Your task to perform on an android device: change the clock display to show seconds Image 0: 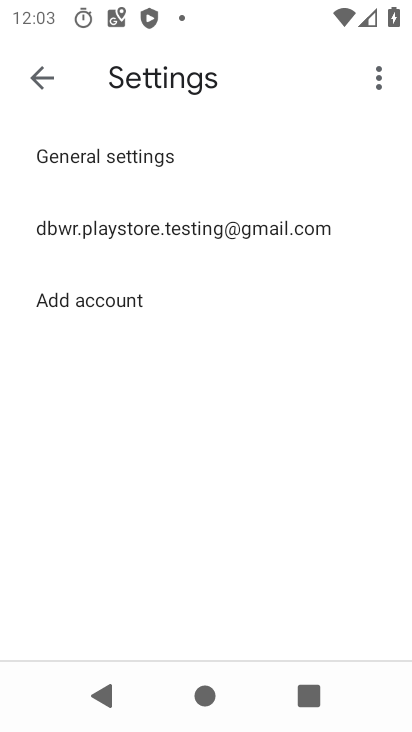
Step 0: press home button
Your task to perform on an android device: change the clock display to show seconds Image 1: 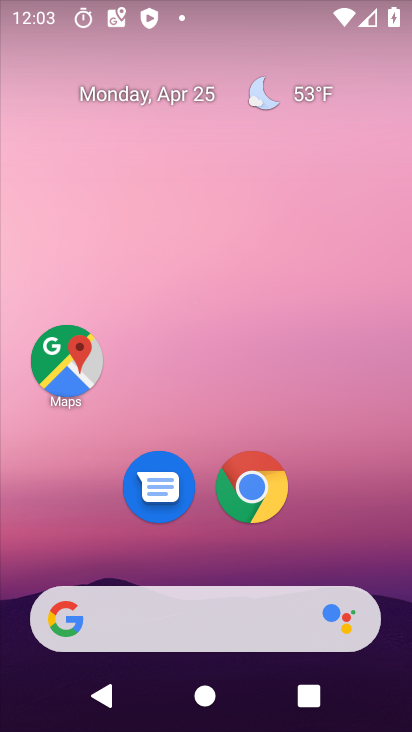
Step 1: drag from (198, 494) to (214, 338)
Your task to perform on an android device: change the clock display to show seconds Image 2: 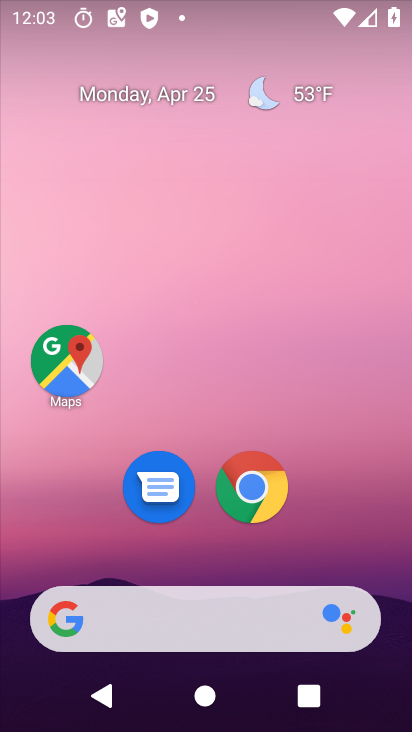
Step 2: drag from (206, 462) to (219, 42)
Your task to perform on an android device: change the clock display to show seconds Image 3: 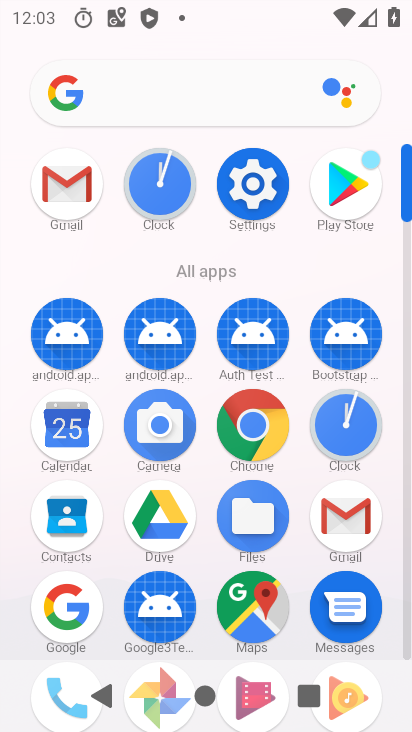
Step 3: click (332, 435)
Your task to perform on an android device: change the clock display to show seconds Image 4: 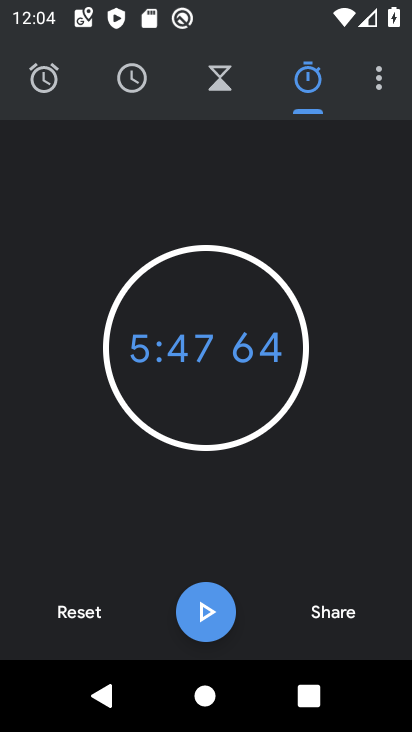
Step 4: click (377, 93)
Your task to perform on an android device: change the clock display to show seconds Image 5: 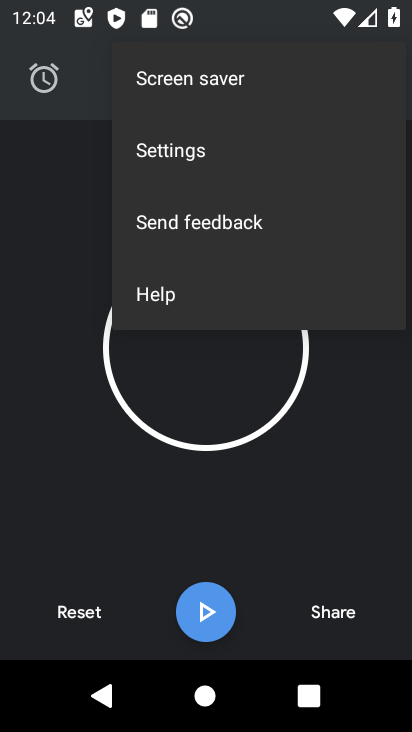
Step 5: click (207, 154)
Your task to perform on an android device: change the clock display to show seconds Image 6: 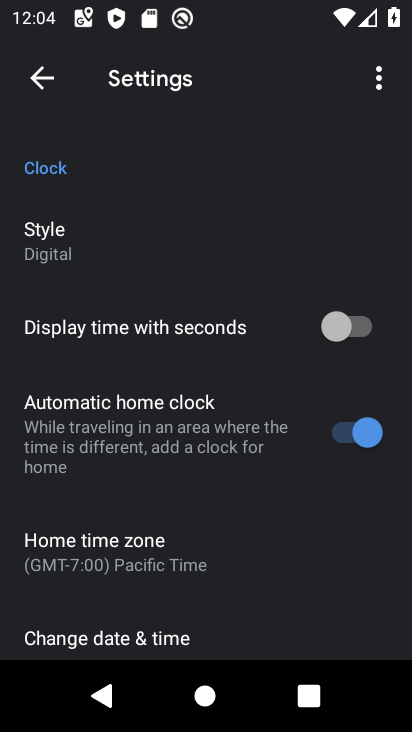
Step 6: click (363, 328)
Your task to perform on an android device: change the clock display to show seconds Image 7: 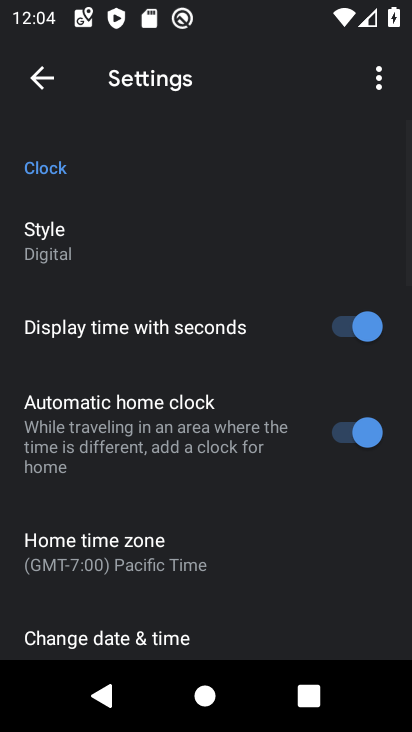
Step 7: task complete